Your task to perform on an android device: Search for pizza restaurants on Maps Image 0: 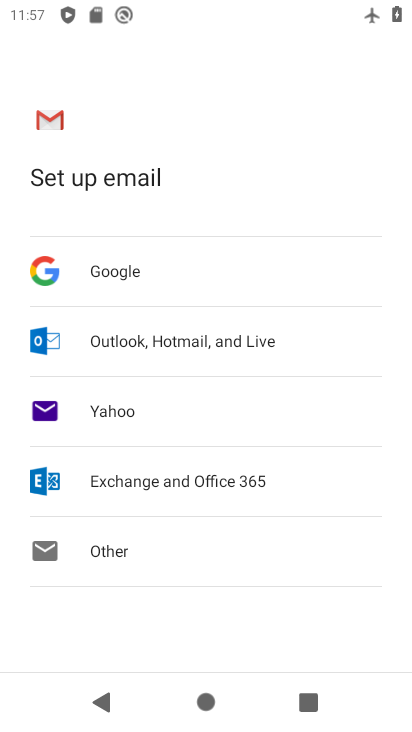
Step 0: press home button
Your task to perform on an android device: Search for pizza restaurants on Maps Image 1: 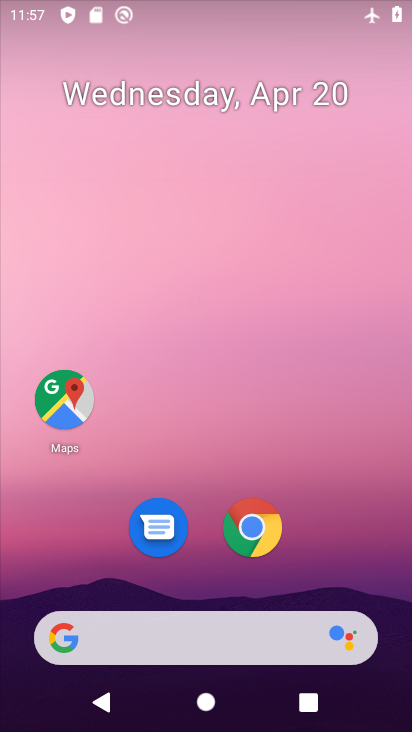
Step 1: drag from (326, 584) to (284, 137)
Your task to perform on an android device: Search for pizza restaurants on Maps Image 2: 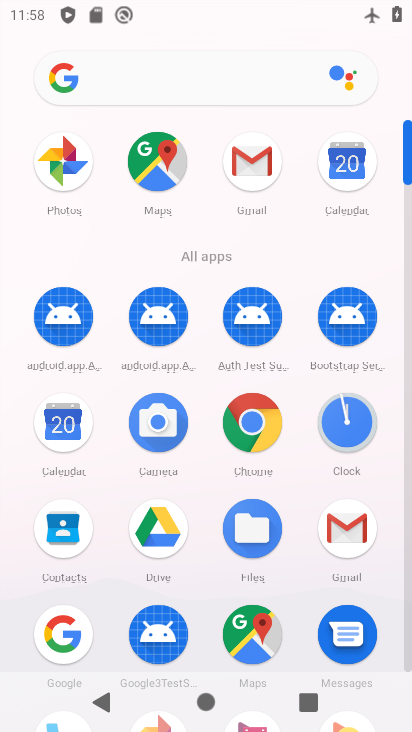
Step 2: click (247, 639)
Your task to perform on an android device: Search for pizza restaurants on Maps Image 3: 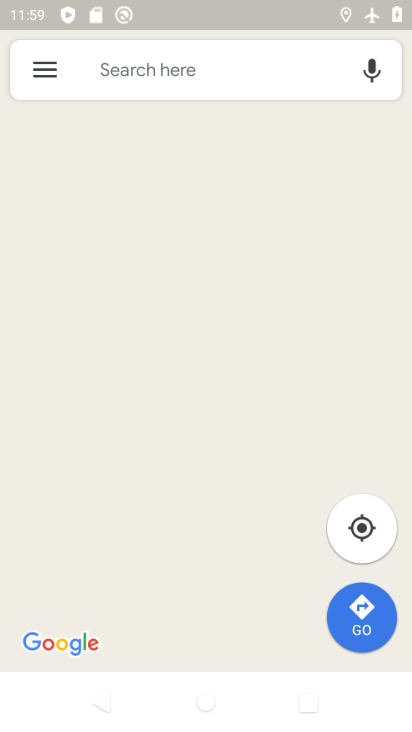
Step 3: click (189, 74)
Your task to perform on an android device: Search for pizza restaurants on Maps Image 4: 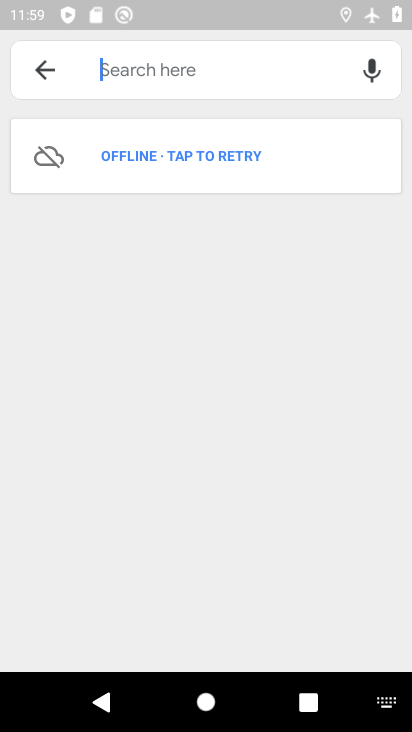
Step 4: task complete